Your task to perform on an android device: Open internet settings Image 0: 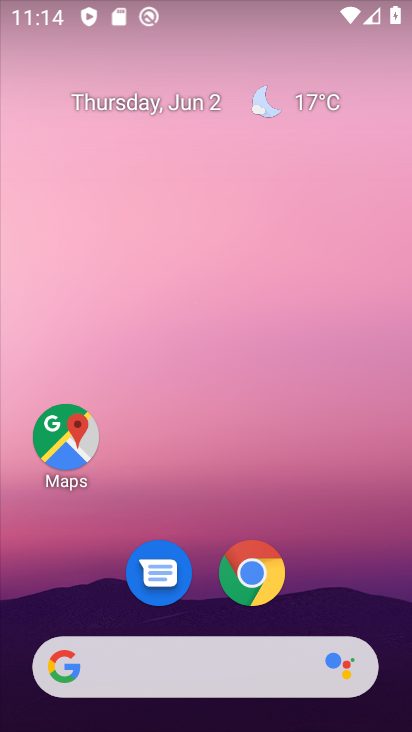
Step 0: task complete